Your task to perform on an android device: turn off wifi Image 0: 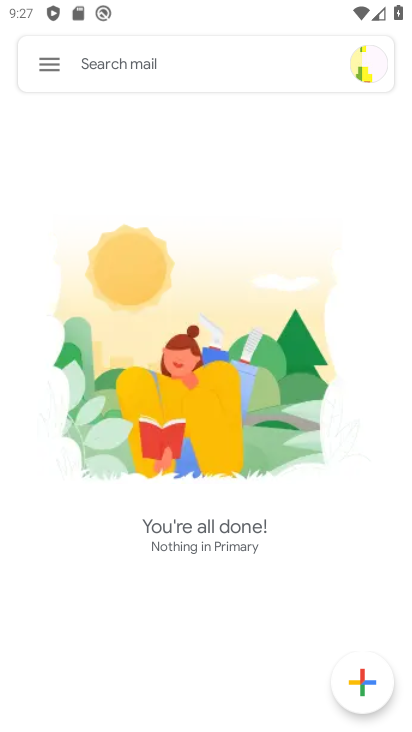
Step 0: drag from (228, 22) to (243, 483)
Your task to perform on an android device: turn off wifi Image 1: 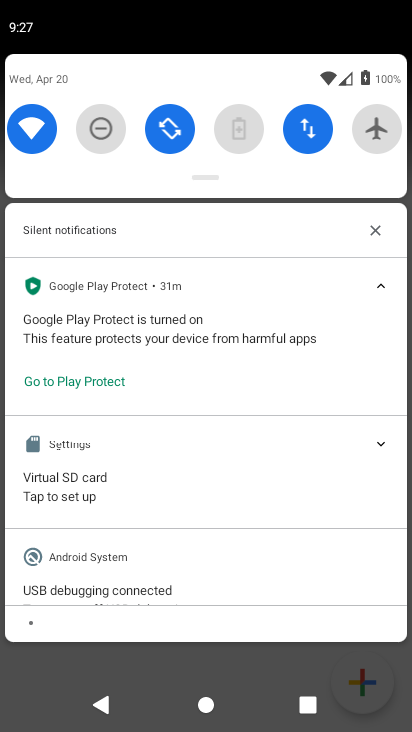
Step 1: click (27, 131)
Your task to perform on an android device: turn off wifi Image 2: 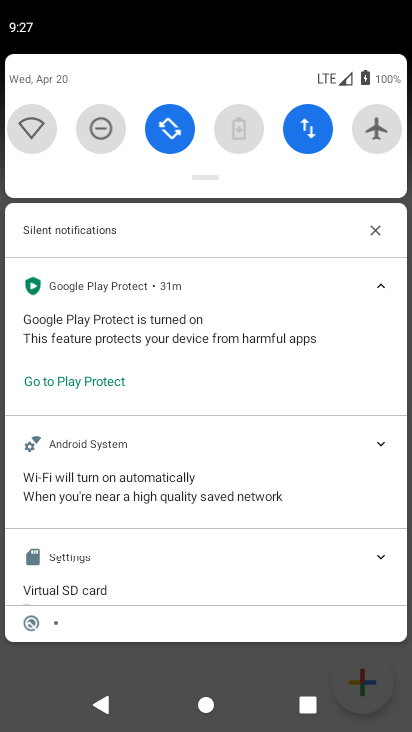
Step 2: task complete